Your task to perform on an android device: turn on javascript in the chrome app Image 0: 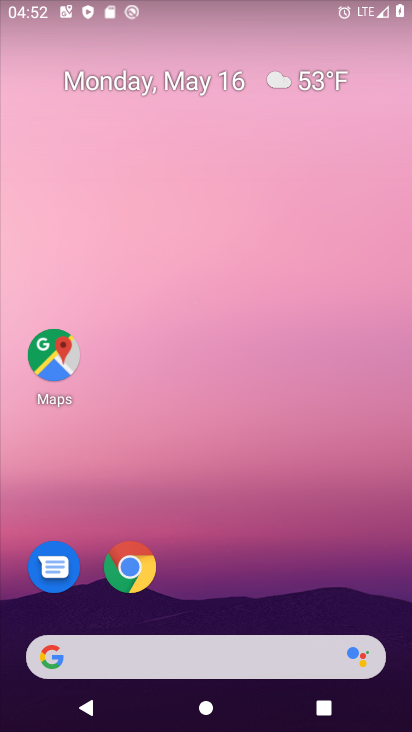
Step 0: drag from (279, 671) to (237, 41)
Your task to perform on an android device: turn on javascript in the chrome app Image 1: 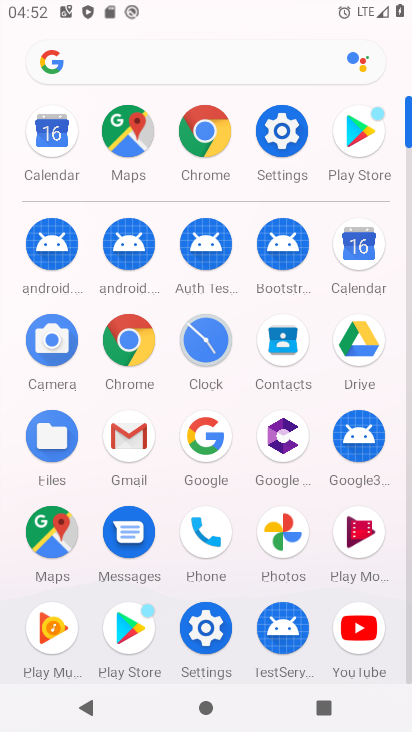
Step 1: click (140, 344)
Your task to perform on an android device: turn on javascript in the chrome app Image 2: 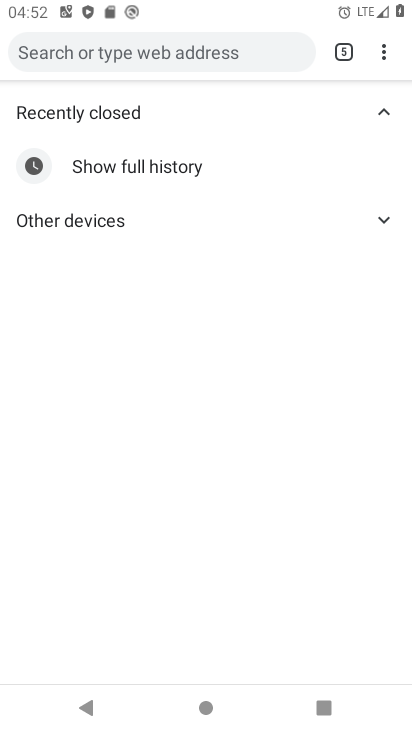
Step 2: click (386, 49)
Your task to perform on an android device: turn on javascript in the chrome app Image 3: 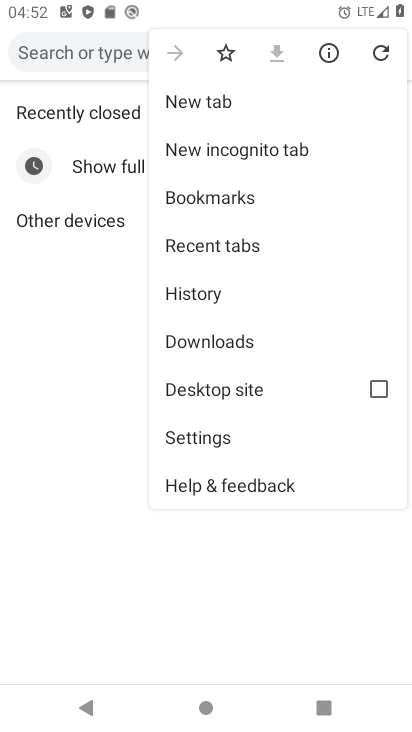
Step 3: click (222, 436)
Your task to perform on an android device: turn on javascript in the chrome app Image 4: 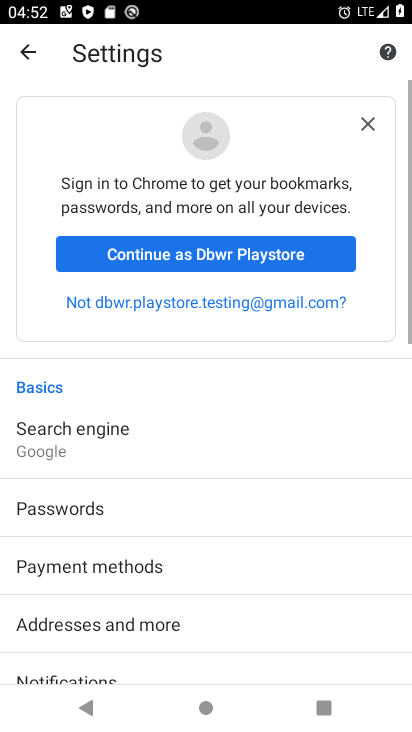
Step 4: drag from (253, 592) to (286, 38)
Your task to perform on an android device: turn on javascript in the chrome app Image 5: 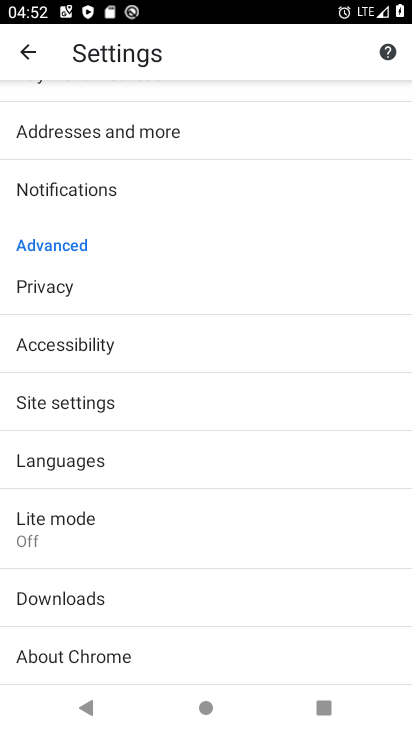
Step 5: drag from (195, 629) to (218, 132)
Your task to perform on an android device: turn on javascript in the chrome app Image 6: 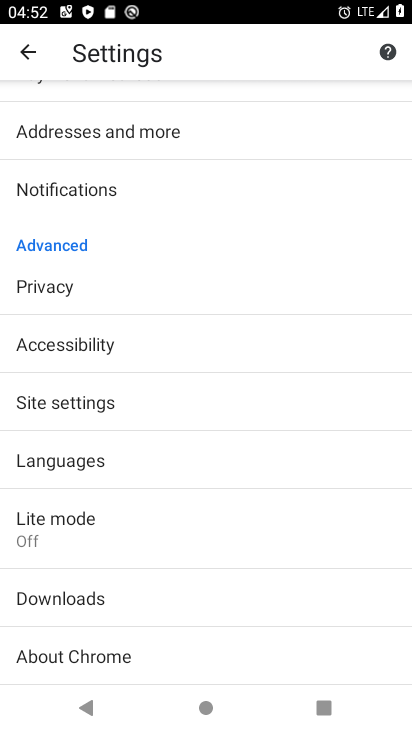
Step 6: click (103, 411)
Your task to perform on an android device: turn on javascript in the chrome app Image 7: 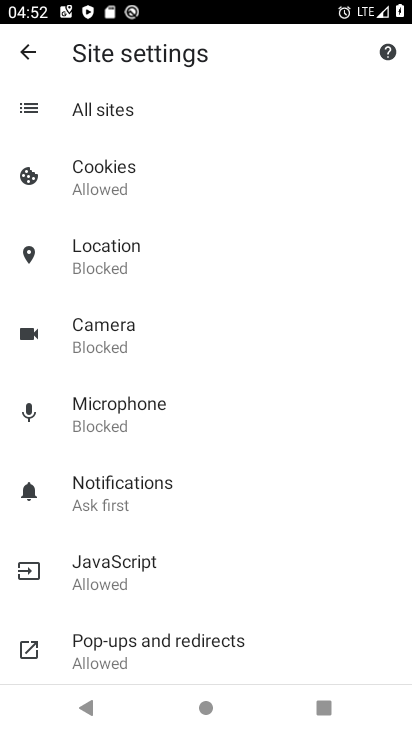
Step 7: click (181, 572)
Your task to perform on an android device: turn on javascript in the chrome app Image 8: 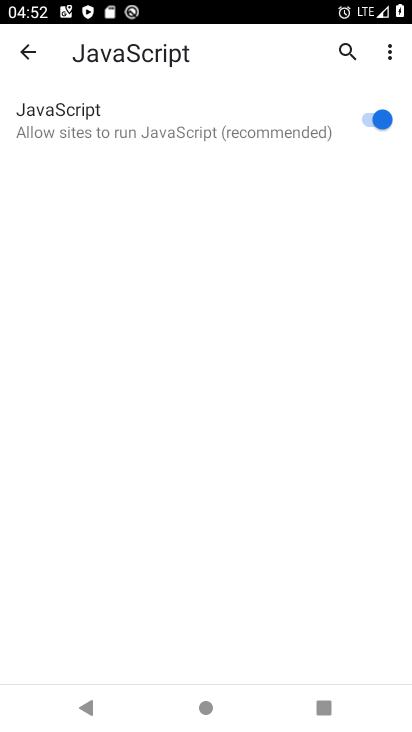
Step 8: task complete